Your task to perform on an android device: Open the calendar app, open the side menu, and click the "Day" option Image 0: 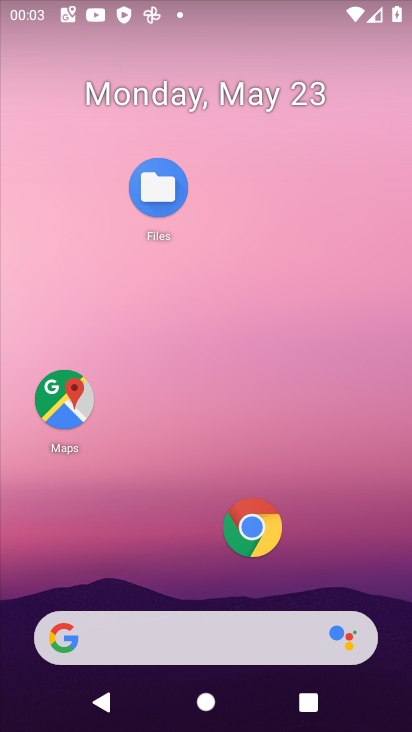
Step 0: drag from (355, 532) to (192, 31)
Your task to perform on an android device: Open the calendar app, open the side menu, and click the "Day" option Image 1: 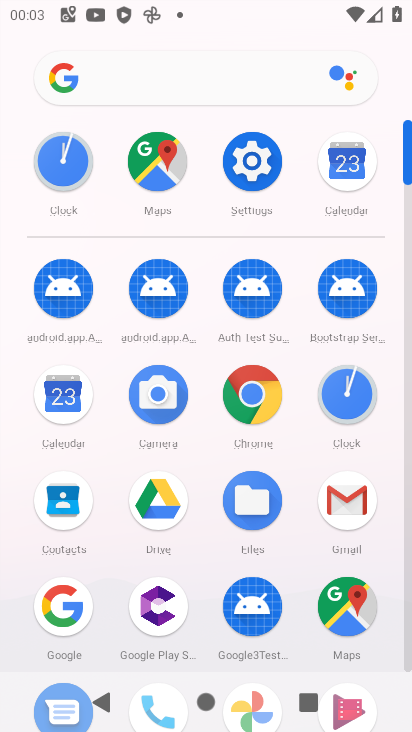
Step 1: click (66, 405)
Your task to perform on an android device: Open the calendar app, open the side menu, and click the "Day" option Image 2: 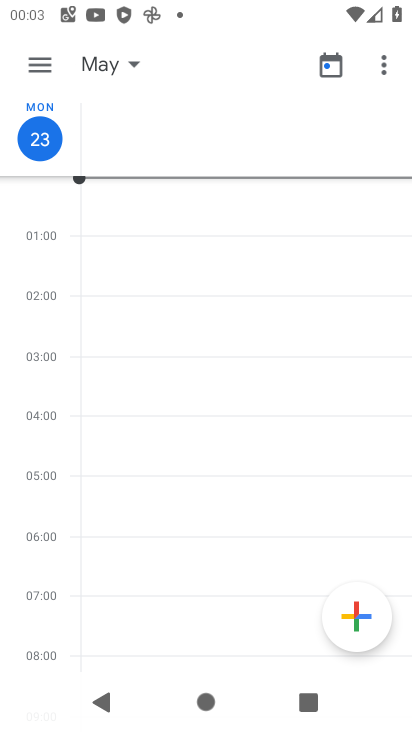
Step 2: click (46, 63)
Your task to perform on an android device: Open the calendar app, open the side menu, and click the "Day" option Image 3: 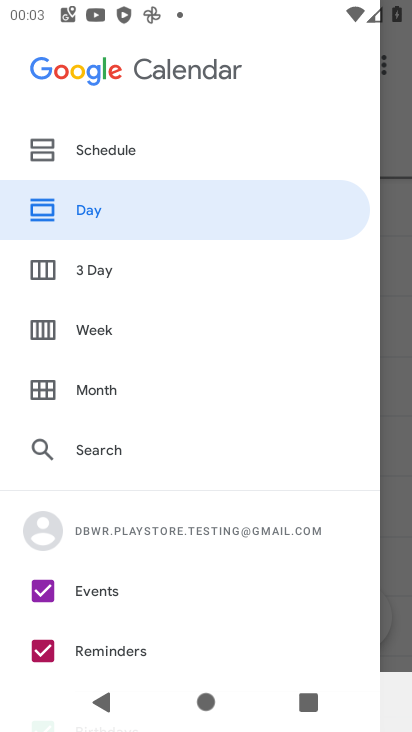
Step 3: click (118, 200)
Your task to perform on an android device: Open the calendar app, open the side menu, and click the "Day" option Image 4: 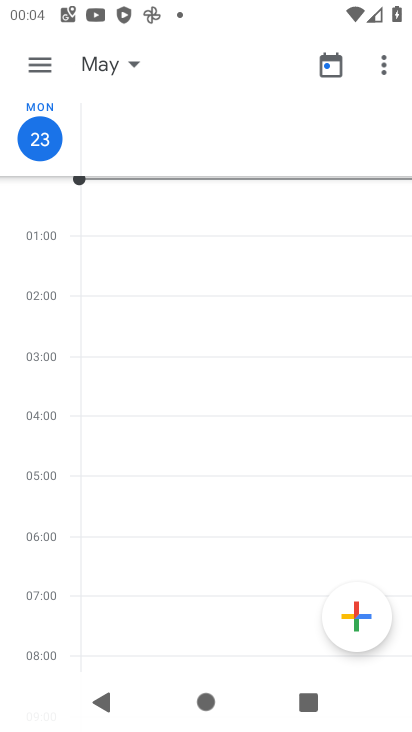
Step 4: task complete